Your task to perform on an android device: change the clock display to analog Image 0: 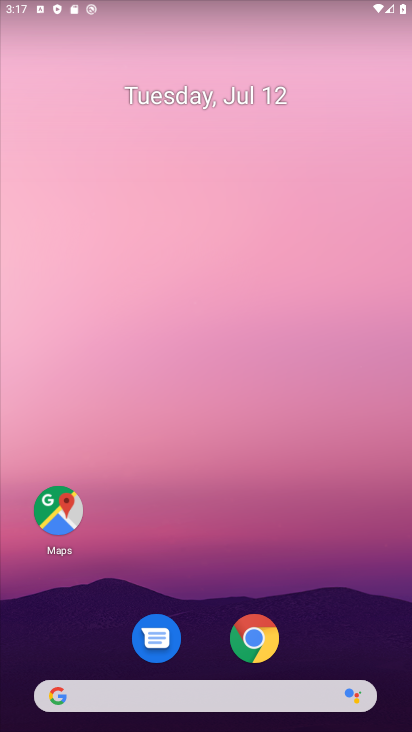
Step 0: drag from (204, 643) to (195, 49)
Your task to perform on an android device: change the clock display to analog Image 1: 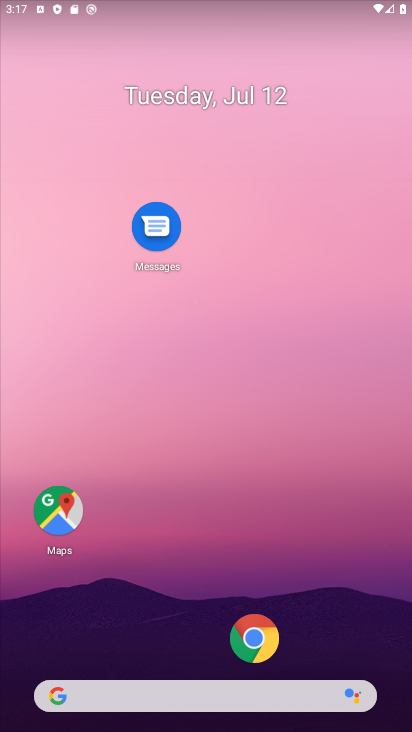
Step 1: drag from (138, 637) to (212, 4)
Your task to perform on an android device: change the clock display to analog Image 2: 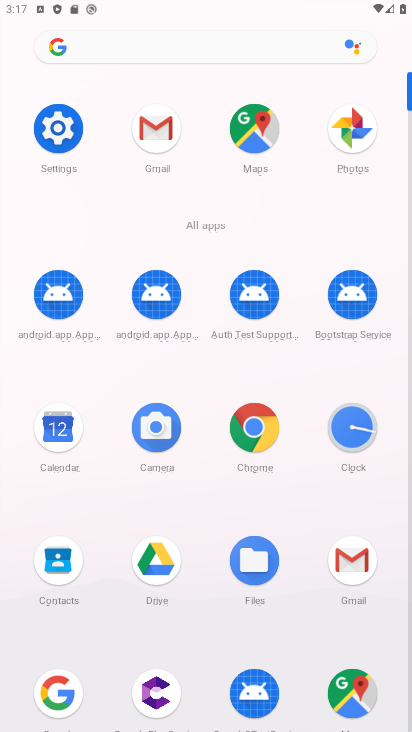
Step 2: click (371, 443)
Your task to perform on an android device: change the clock display to analog Image 3: 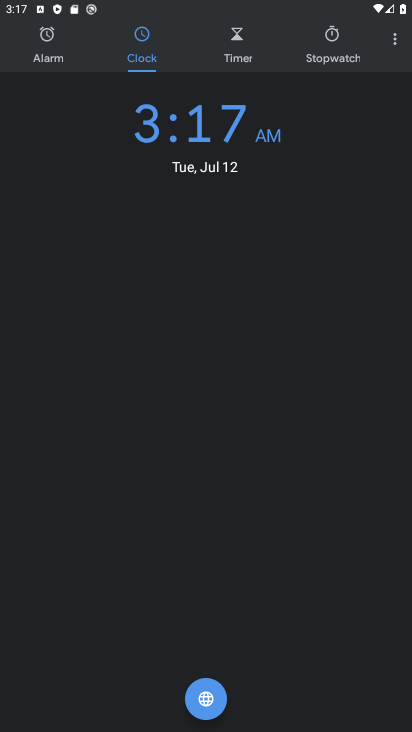
Step 3: click (385, 46)
Your task to perform on an android device: change the clock display to analog Image 4: 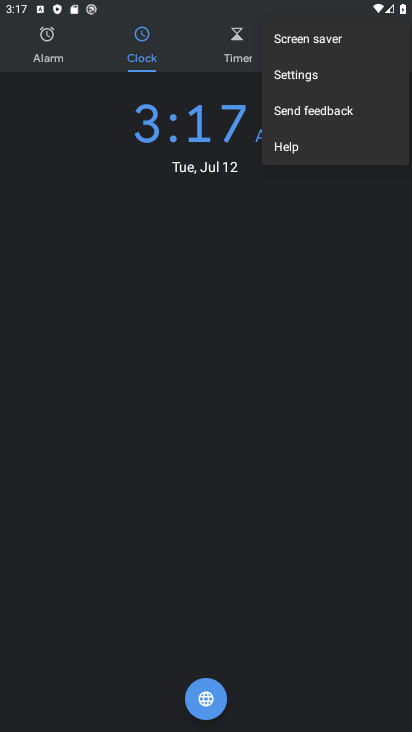
Step 4: click (335, 68)
Your task to perform on an android device: change the clock display to analog Image 5: 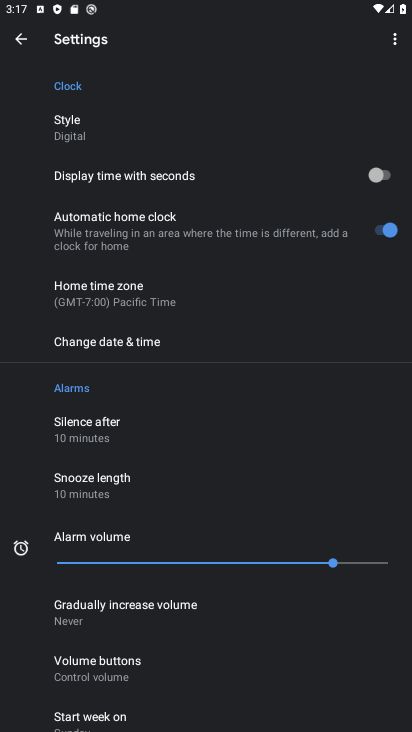
Step 5: click (116, 138)
Your task to perform on an android device: change the clock display to analog Image 6: 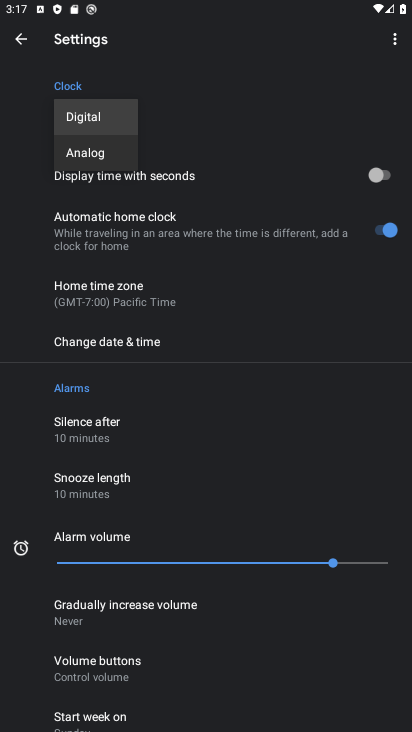
Step 6: click (126, 155)
Your task to perform on an android device: change the clock display to analog Image 7: 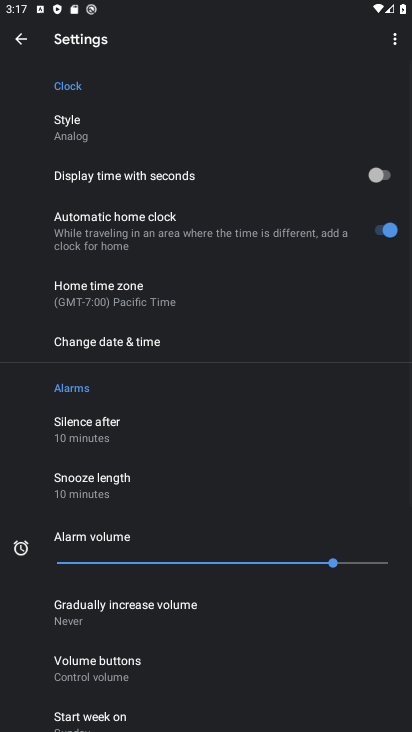
Step 7: task complete